Your task to perform on an android device: Do I have any events tomorrow? Image 0: 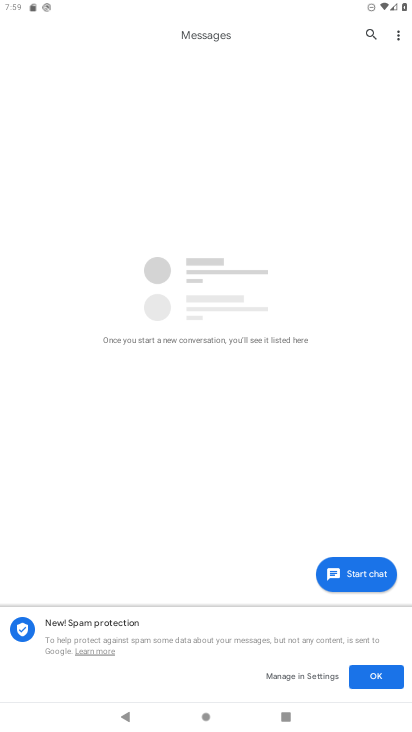
Step 0: press home button
Your task to perform on an android device: Do I have any events tomorrow? Image 1: 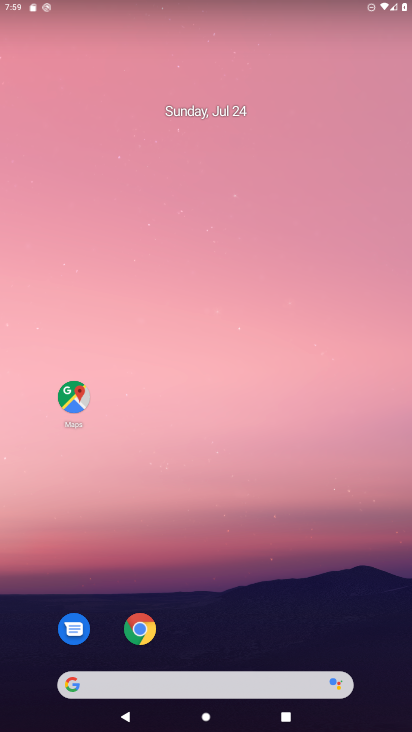
Step 1: drag from (363, 645) to (230, 51)
Your task to perform on an android device: Do I have any events tomorrow? Image 2: 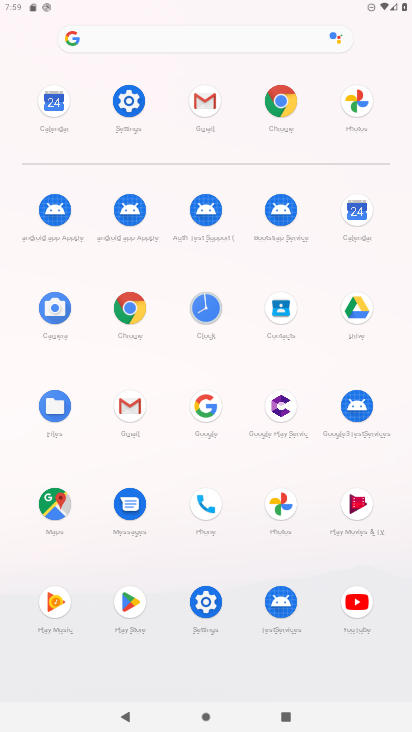
Step 2: click (349, 212)
Your task to perform on an android device: Do I have any events tomorrow? Image 3: 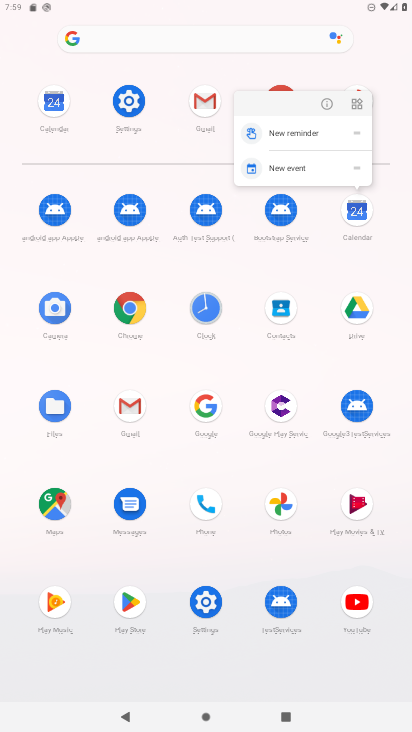
Step 3: click (349, 212)
Your task to perform on an android device: Do I have any events tomorrow? Image 4: 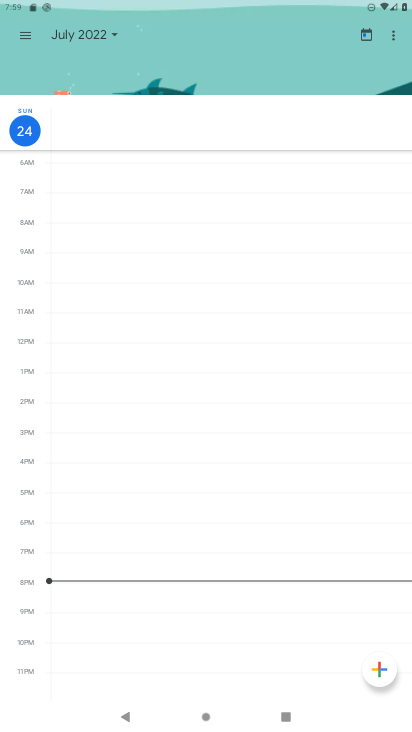
Step 4: task complete